Your task to perform on an android device: Open the phone app and click the voicemail tab. Image 0: 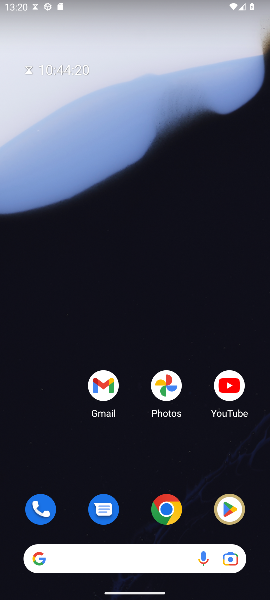
Step 0: press home button
Your task to perform on an android device: Open the phone app and click the voicemail tab. Image 1: 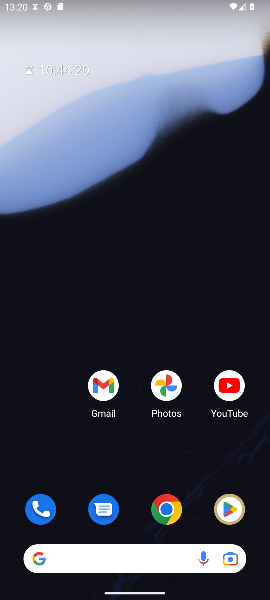
Step 1: drag from (134, 523) to (170, 93)
Your task to perform on an android device: Open the phone app and click the voicemail tab. Image 2: 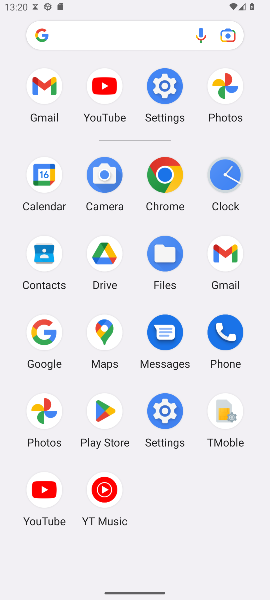
Step 2: click (228, 334)
Your task to perform on an android device: Open the phone app and click the voicemail tab. Image 3: 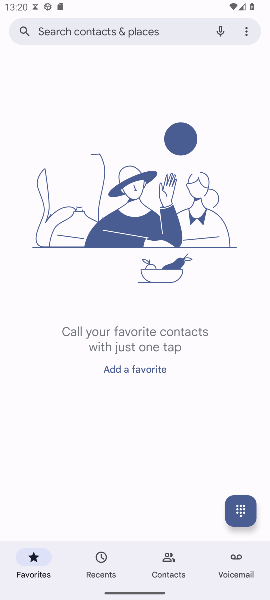
Step 3: click (239, 565)
Your task to perform on an android device: Open the phone app and click the voicemail tab. Image 4: 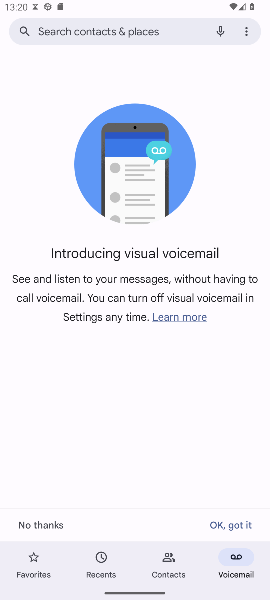
Step 4: task complete